Your task to perform on an android device: change notification settings in the gmail app Image 0: 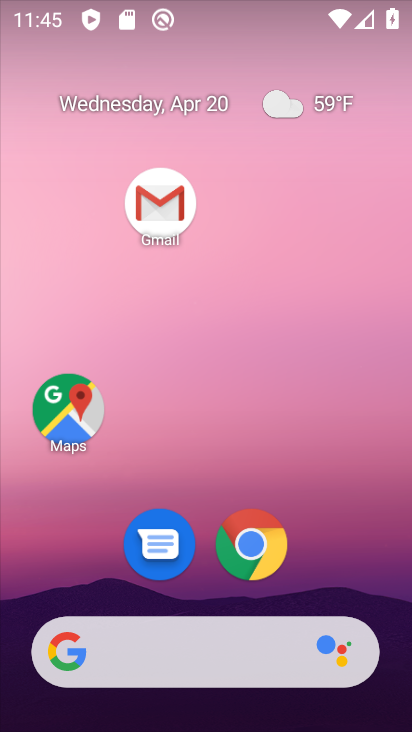
Step 0: click (164, 190)
Your task to perform on an android device: change notification settings in the gmail app Image 1: 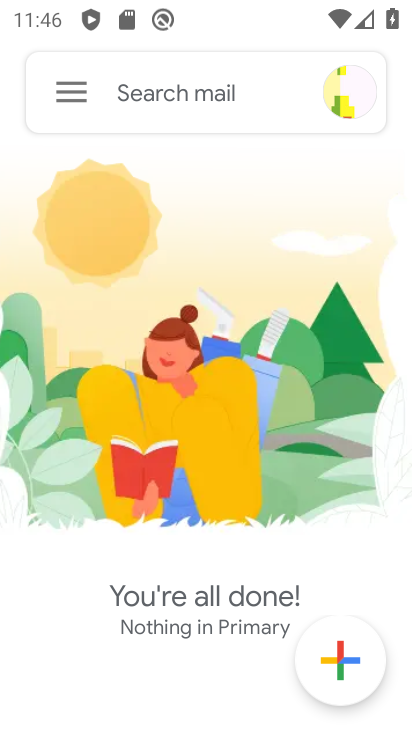
Step 1: click (83, 90)
Your task to perform on an android device: change notification settings in the gmail app Image 2: 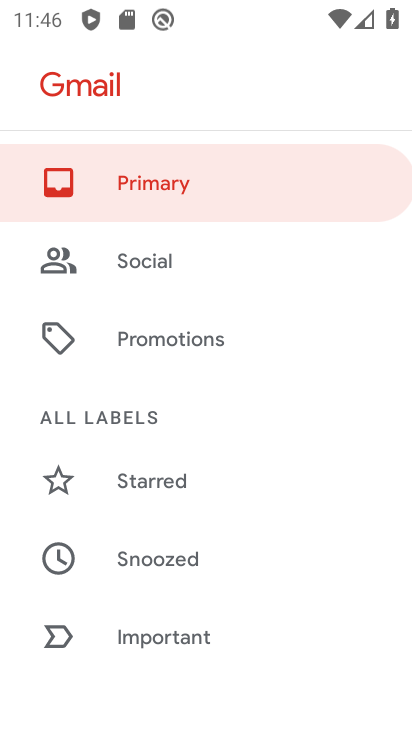
Step 2: drag from (198, 527) to (264, 146)
Your task to perform on an android device: change notification settings in the gmail app Image 3: 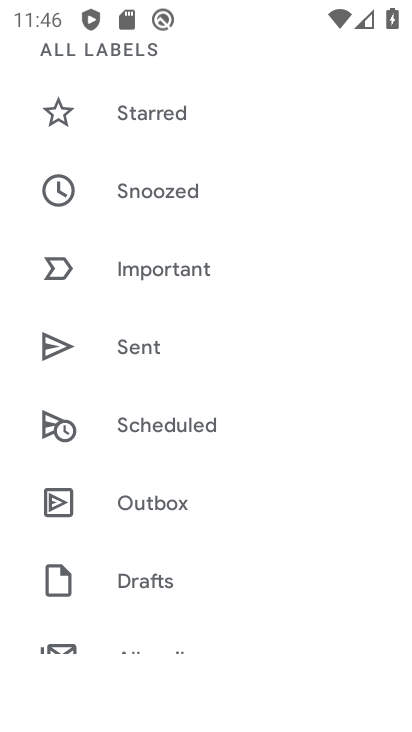
Step 3: drag from (254, 499) to (309, 165)
Your task to perform on an android device: change notification settings in the gmail app Image 4: 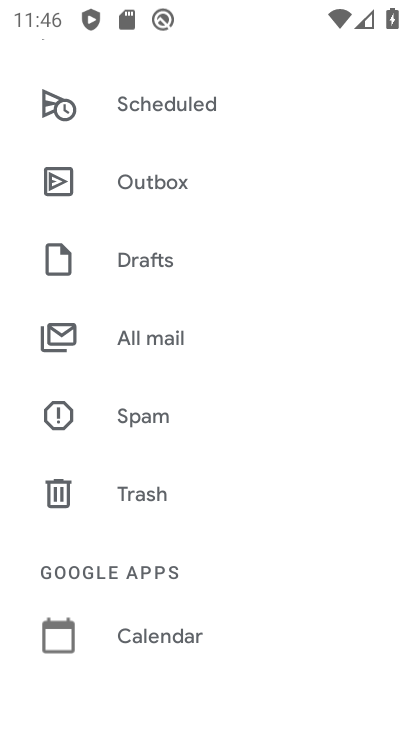
Step 4: drag from (255, 522) to (306, 168)
Your task to perform on an android device: change notification settings in the gmail app Image 5: 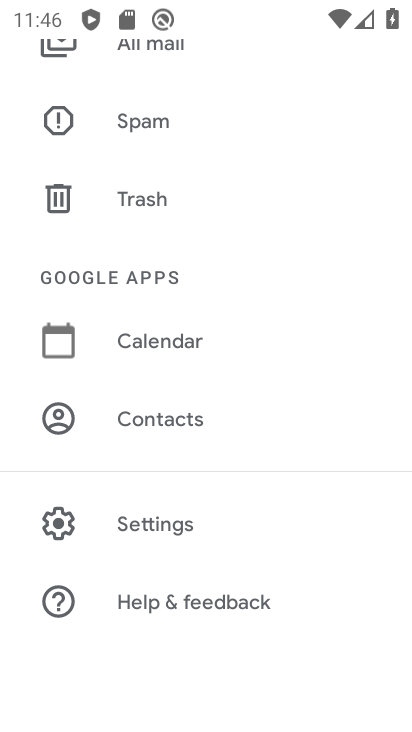
Step 5: click (211, 511)
Your task to perform on an android device: change notification settings in the gmail app Image 6: 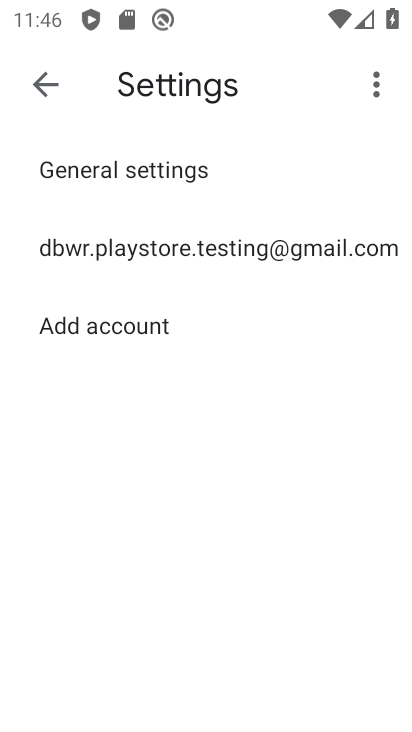
Step 6: click (202, 236)
Your task to perform on an android device: change notification settings in the gmail app Image 7: 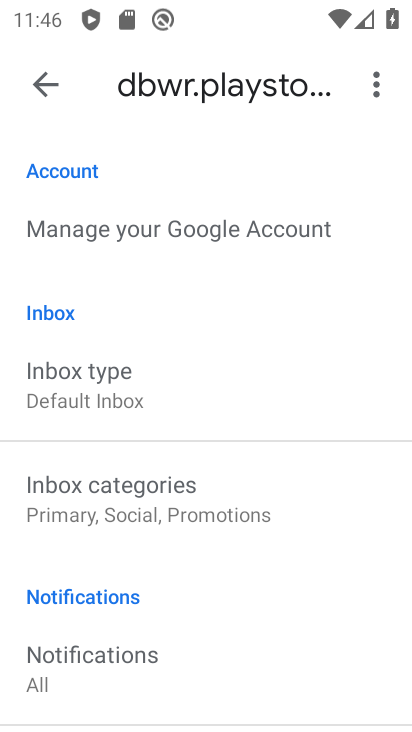
Step 7: click (145, 648)
Your task to perform on an android device: change notification settings in the gmail app Image 8: 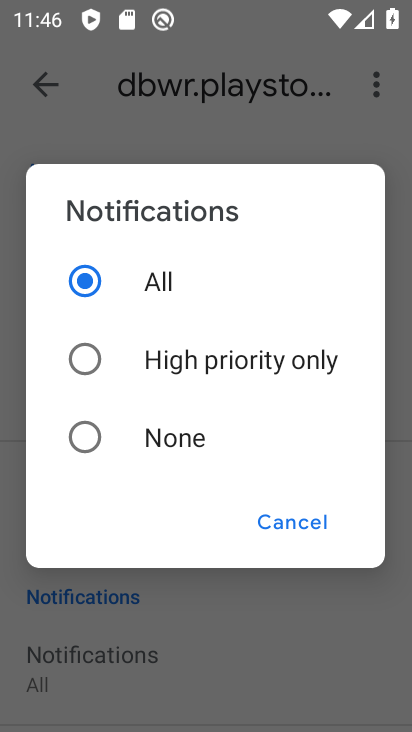
Step 8: click (228, 361)
Your task to perform on an android device: change notification settings in the gmail app Image 9: 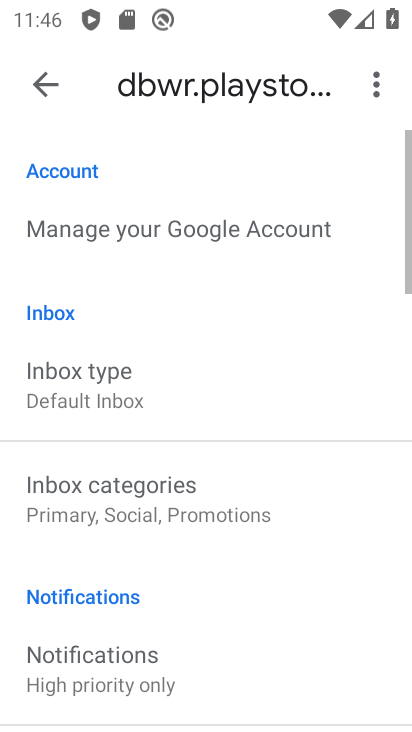
Step 9: task complete